Your task to perform on an android device: Open calendar and show me the first week of next month Image 0: 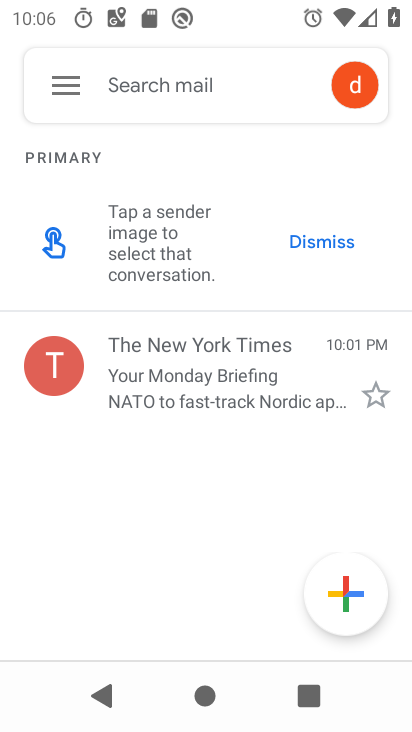
Step 0: press home button
Your task to perform on an android device: Open calendar and show me the first week of next month Image 1: 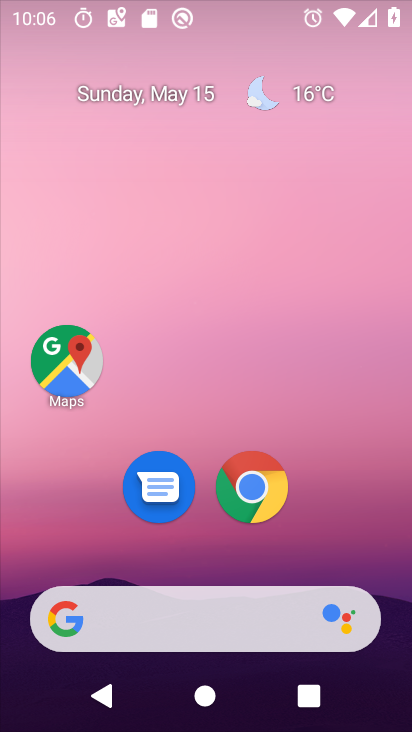
Step 1: drag from (376, 543) to (394, 141)
Your task to perform on an android device: Open calendar and show me the first week of next month Image 2: 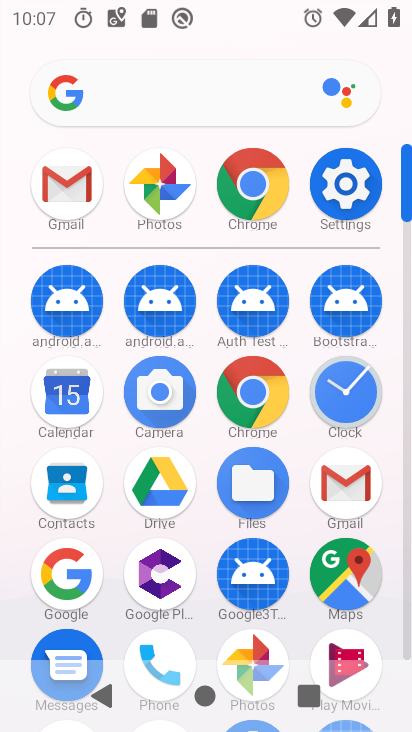
Step 2: click (65, 386)
Your task to perform on an android device: Open calendar and show me the first week of next month Image 3: 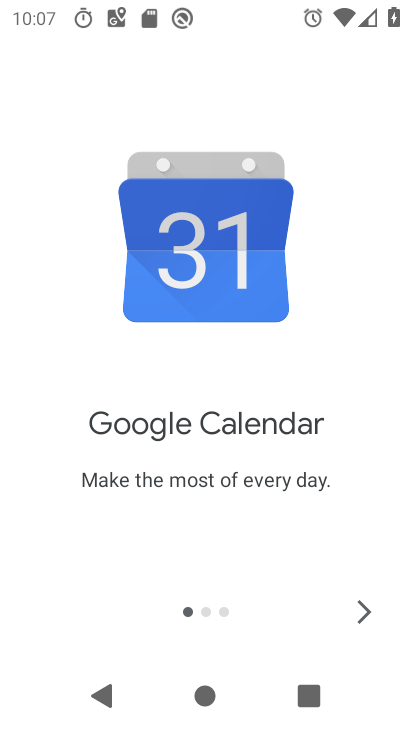
Step 3: click (367, 602)
Your task to perform on an android device: Open calendar and show me the first week of next month Image 4: 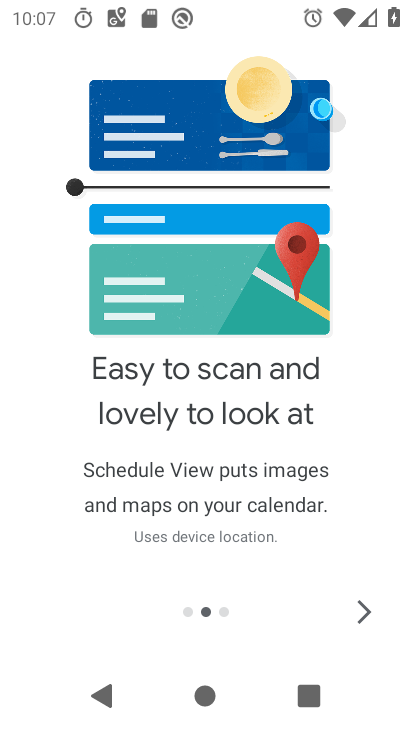
Step 4: click (367, 602)
Your task to perform on an android device: Open calendar and show me the first week of next month Image 5: 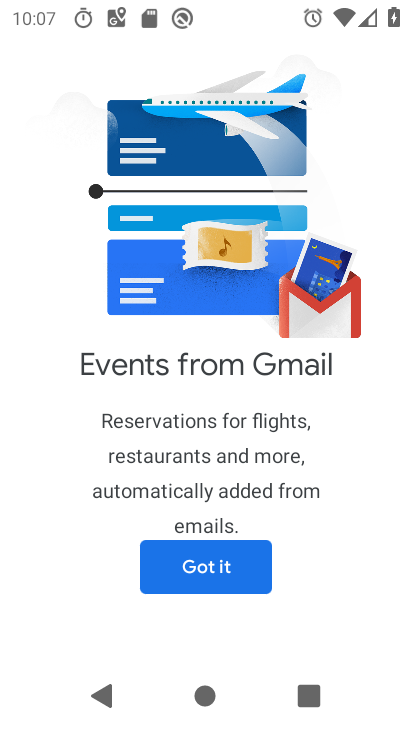
Step 5: click (234, 576)
Your task to perform on an android device: Open calendar and show me the first week of next month Image 6: 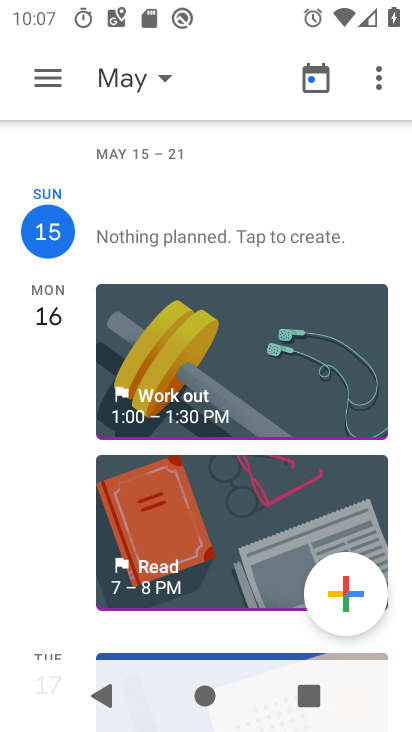
Step 6: click (309, 79)
Your task to perform on an android device: Open calendar and show me the first week of next month Image 7: 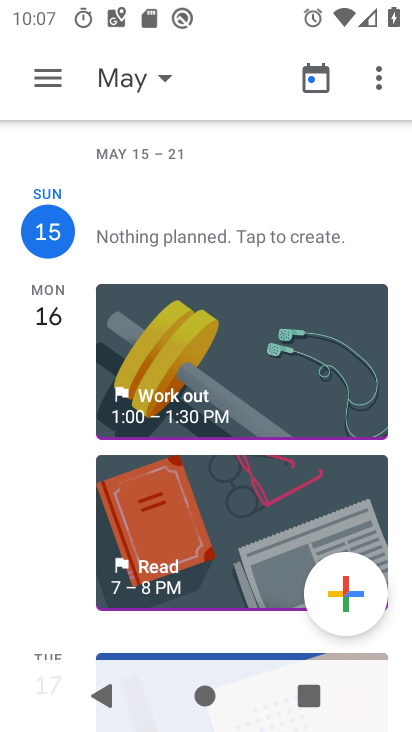
Step 7: click (110, 87)
Your task to perform on an android device: Open calendar and show me the first week of next month Image 8: 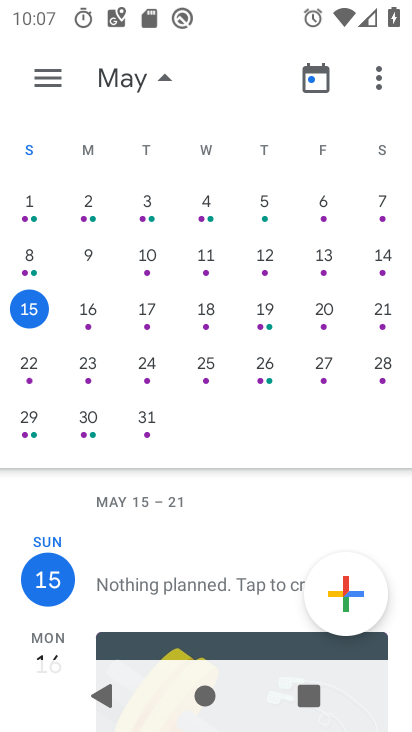
Step 8: task complete